Your task to perform on an android device: Go to settings Image 0: 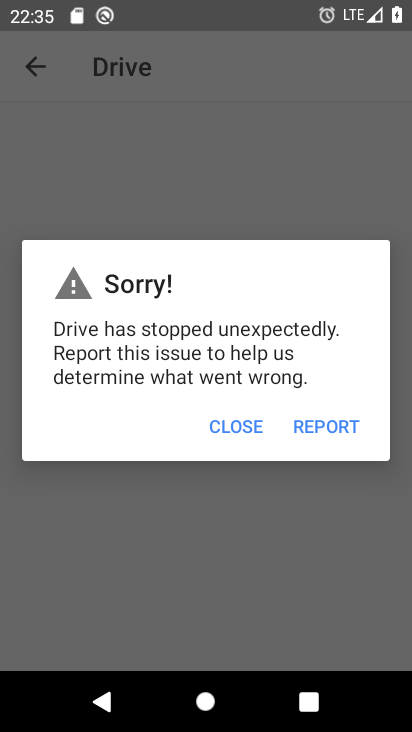
Step 0: press home button
Your task to perform on an android device: Go to settings Image 1: 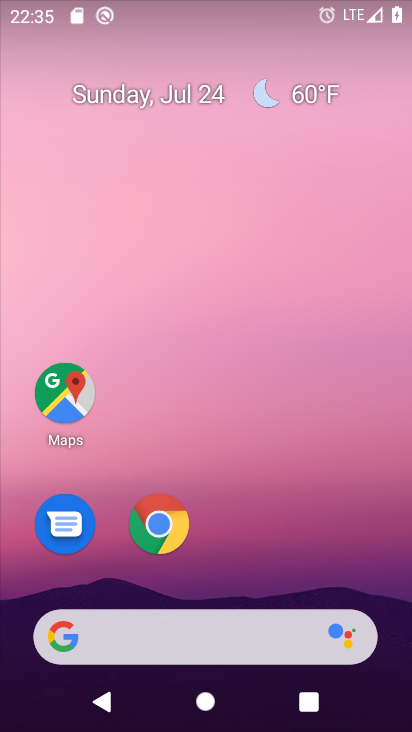
Step 1: drag from (278, 571) to (311, 56)
Your task to perform on an android device: Go to settings Image 2: 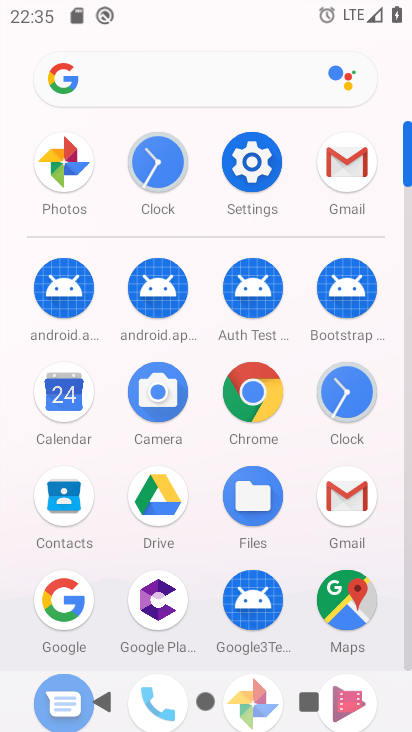
Step 2: click (257, 166)
Your task to perform on an android device: Go to settings Image 3: 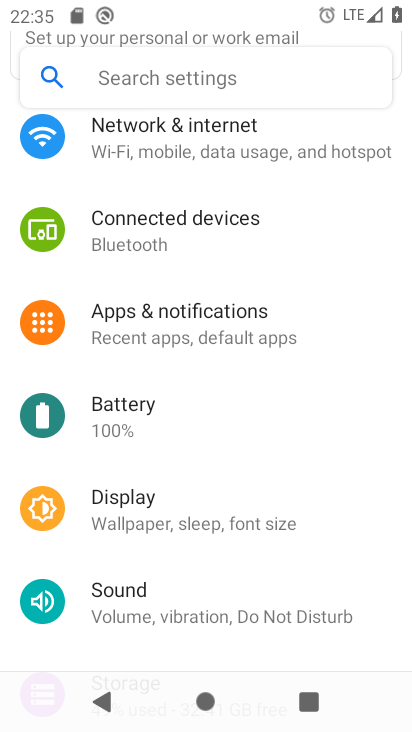
Step 3: task complete